Your task to perform on an android device: all mails in gmail Image 0: 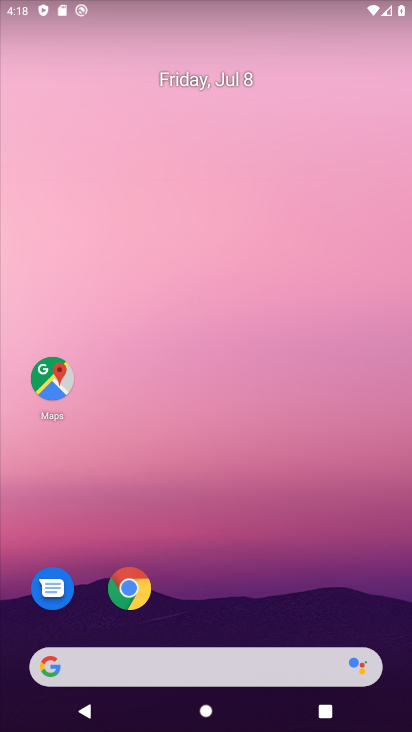
Step 0: drag from (252, 570) to (259, 174)
Your task to perform on an android device: all mails in gmail Image 1: 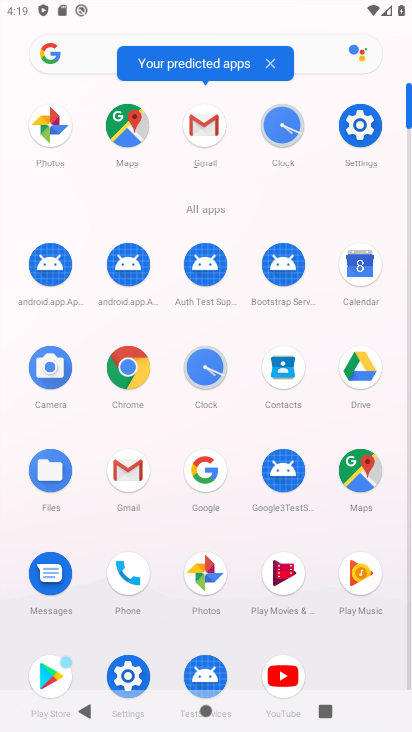
Step 1: click (131, 471)
Your task to perform on an android device: all mails in gmail Image 2: 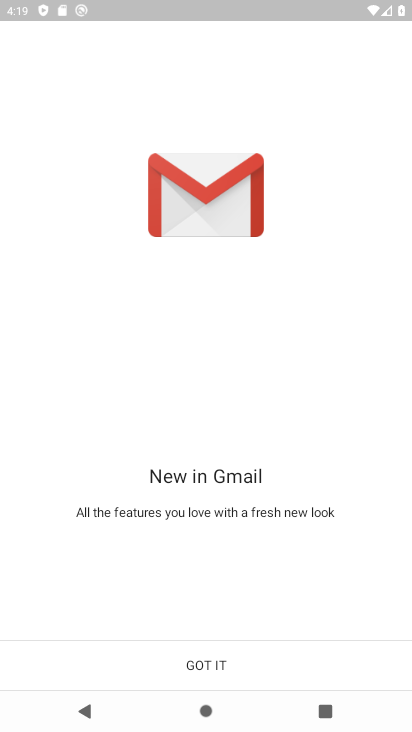
Step 2: click (212, 658)
Your task to perform on an android device: all mails in gmail Image 3: 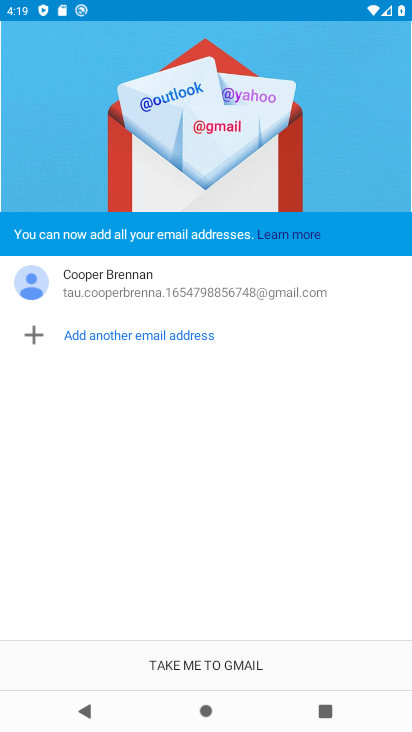
Step 3: click (216, 657)
Your task to perform on an android device: all mails in gmail Image 4: 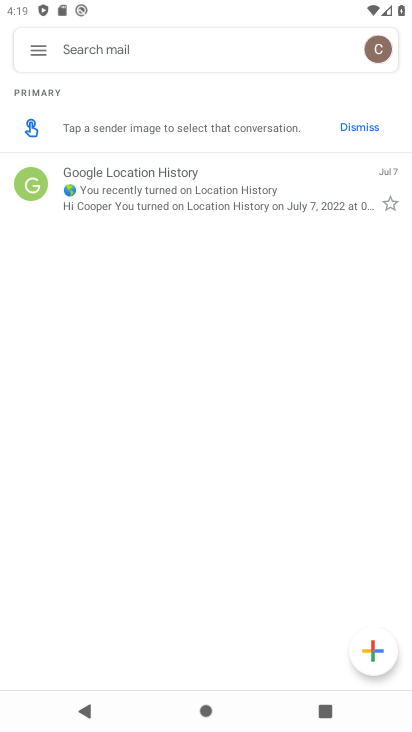
Step 4: click (36, 46)
Your task to perform on an android device: all mails in gmail Image 5: 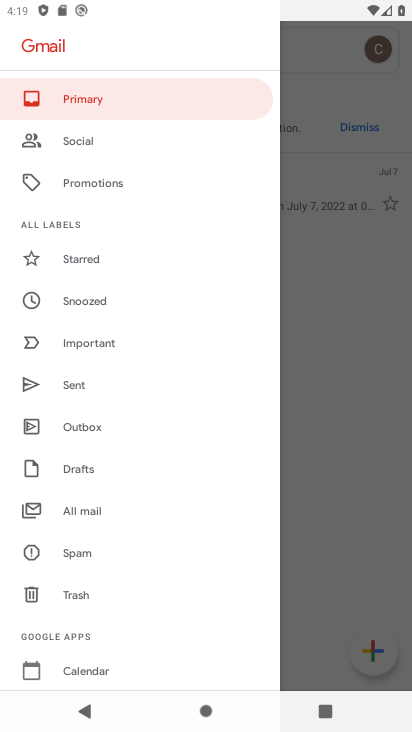
Step 5: click (71, 508)
Your task to perform on an android device: all mails in gmail Image 6: 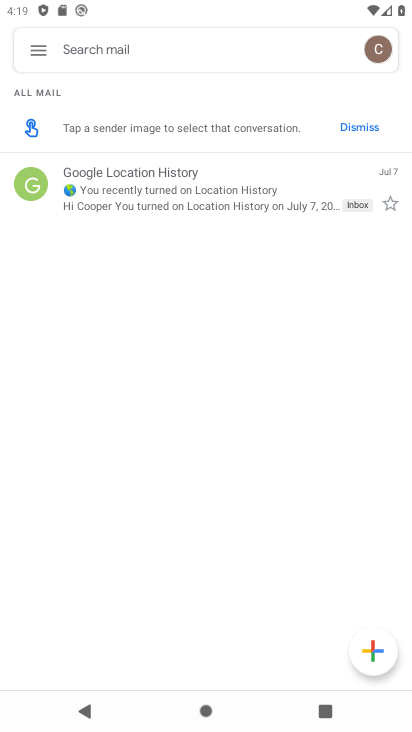
Step 6: task complete